Your task to perform on an android device: Open settings Image 0: 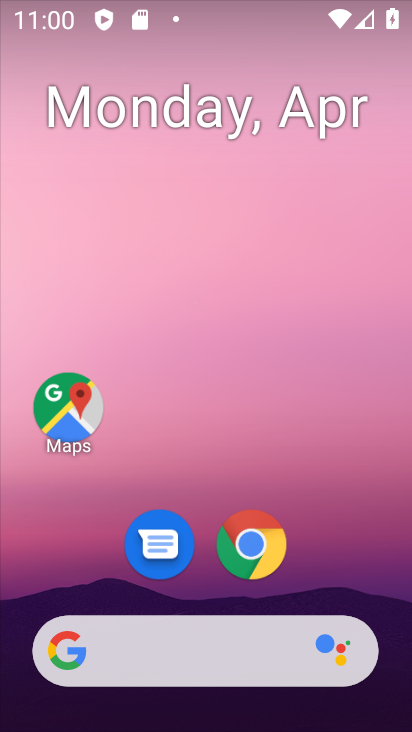
Step 0: drag from (339, 583) to (323, 25)
Your task to perform on an android device: Open settings Image 1: 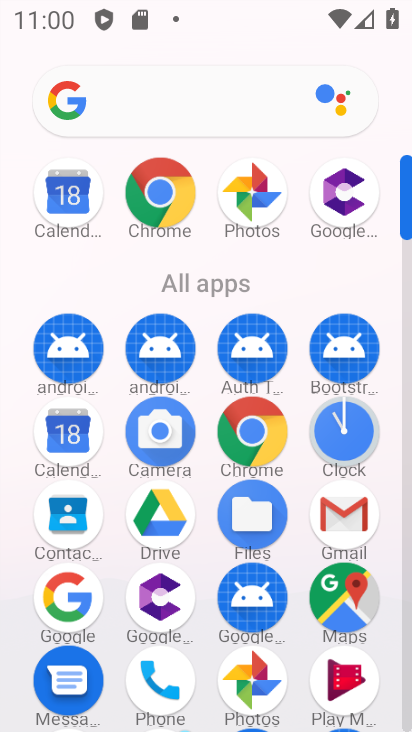
Step 1: drag from (411, 590) to (410, 542)
Your task to perform on an android device: Open settings Image 2: 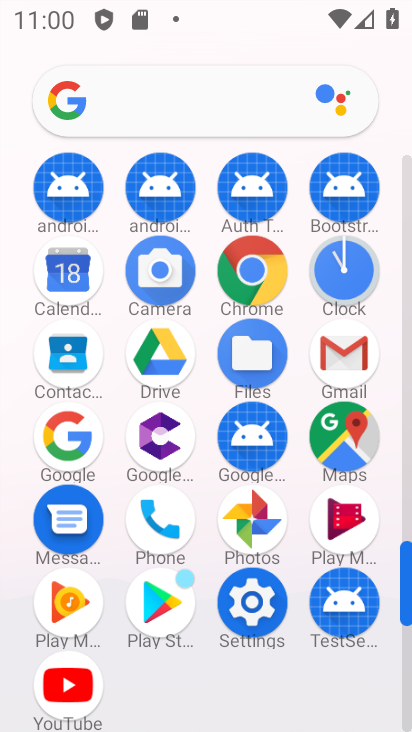
Step 2: click (249, 610)
Your task to perform on an android device: Open settings Image 3: 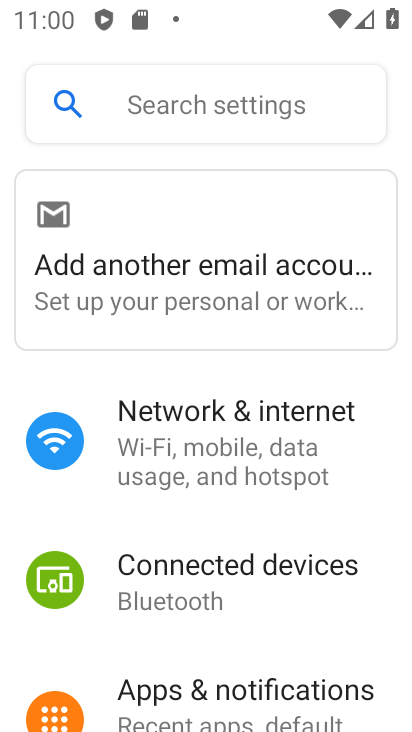
Step 3: task complete